Your task to perform on an android device: open chrome privacy settings Image 0: 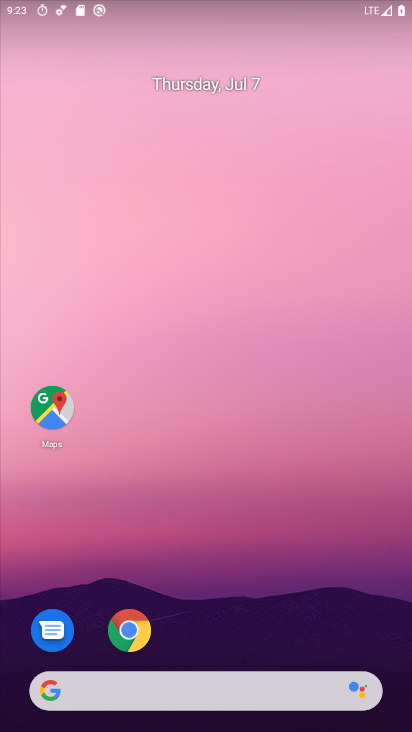
Step 0: click (120, 628)
Your task to perform on an android device: open chrome privacy settings Image 1: 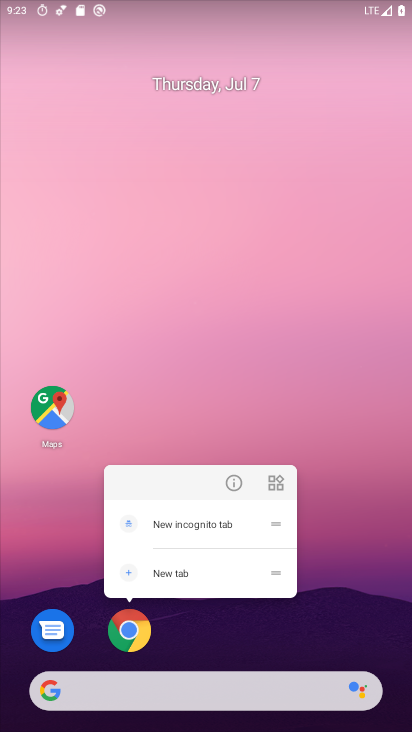
Step 1: click (132, 629)
Your task to perform on an android device: open chrome privacy settings Image 2: 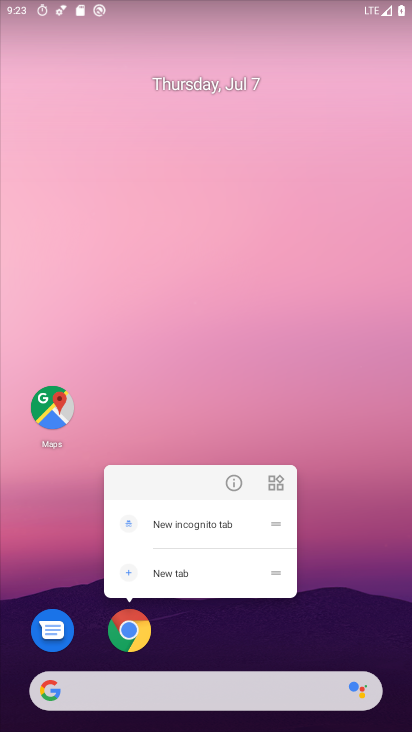
Step 2: click (133, 624)
Your task to perform on an android device: open chrome privacy settings Image 3: 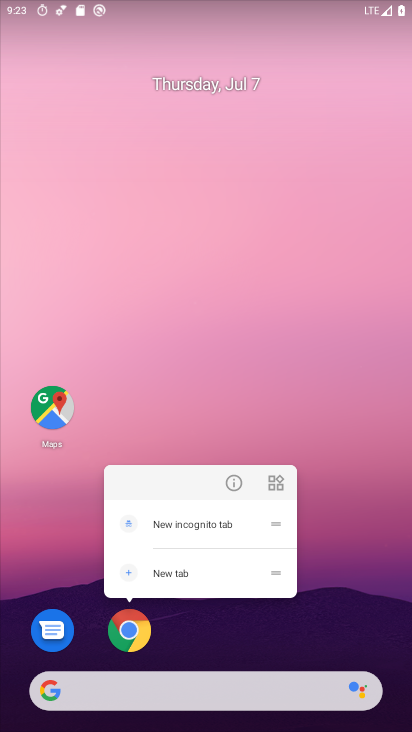
Step 3: click (128, 626)
Your task to perform on an android device: open chrome privacy settings Image 4: 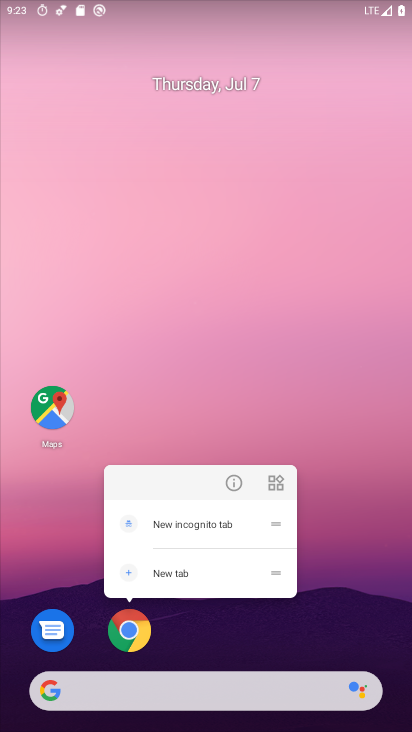
Step 4: click (128, 630)
Your task to perform on an android device: open chrome privacy settings Image 5: 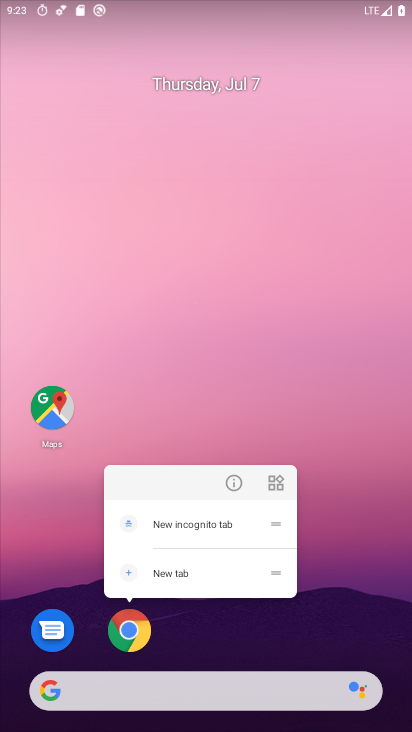
Step 5: click (129, 629)
Your task to perform on an android device: open chrome privacy settings Image 6: 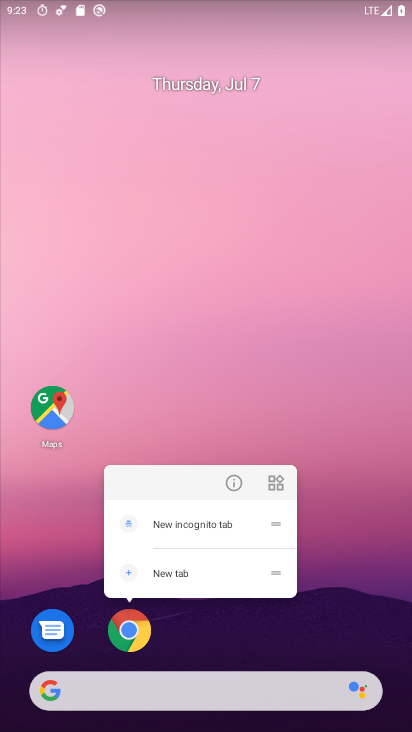
Step 6: click (120, 634)
Your task to perform on an android device: open chrome privacy settings Image 7: 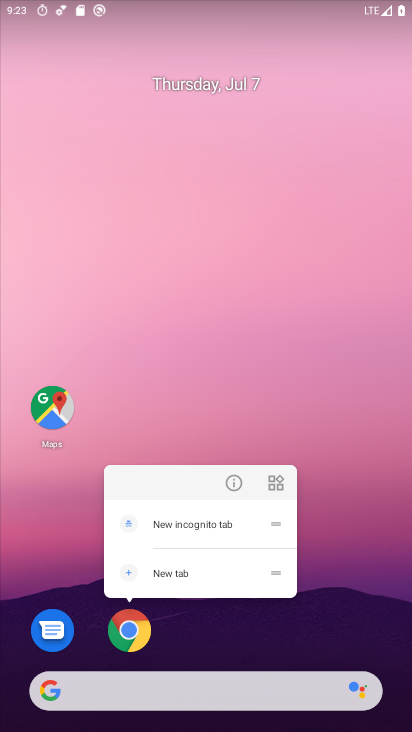
Step 7: click (121, 627)
Your task to perform on an android device: open chrome privacy settings Image 8: 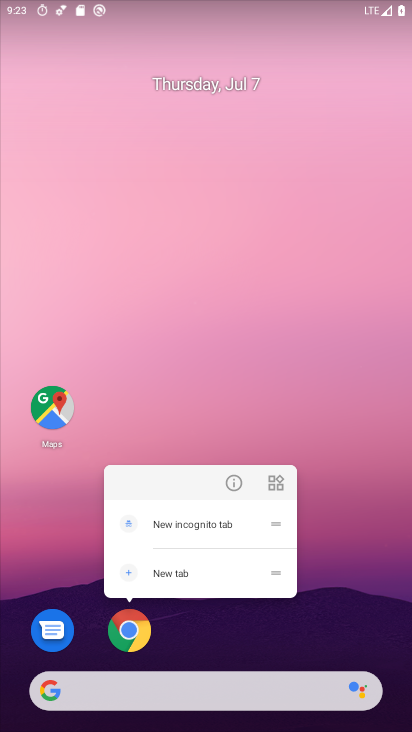
Step 8: task complete